Your task to perform on an android device: see sites visited before in the chrome app Image 0: 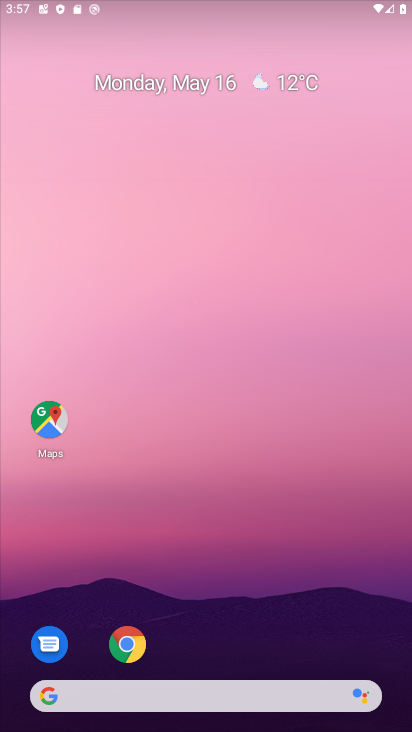
Step 0: drag from (259, 618) to (283, 153)
Your task to perform on an android device: see sites visited before in the chrome app Image 1: 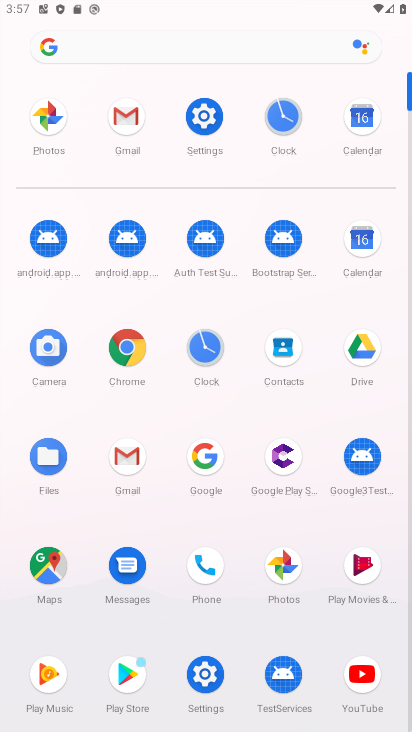
Step 1: click (127, 117)
Your task to perform on an android device: see sites visited before in the chrome app Image 2: 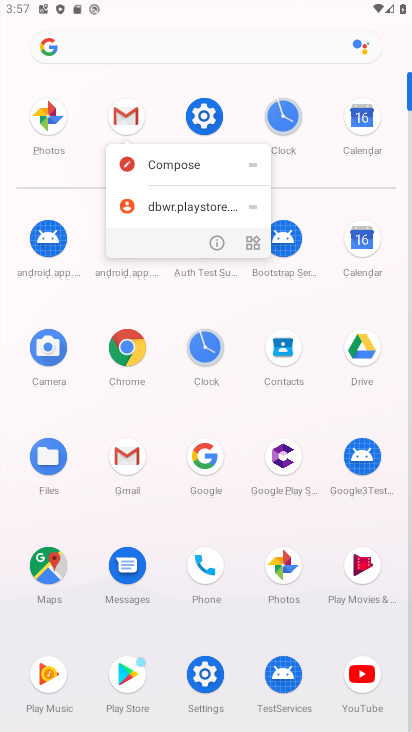
Step 2: click (133, 357)
Your task to perform on an android device: see sites visited before in the chrome app Image 3: 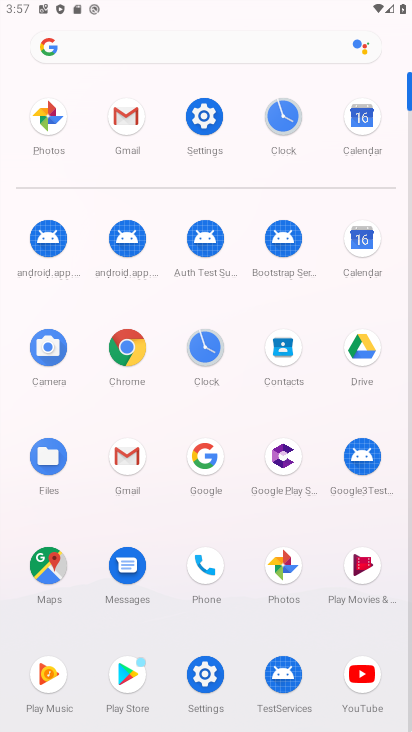
Step 3: click (133, 348)
Your task to perform on an android device: see sites visited before in the chrome app Image 4: 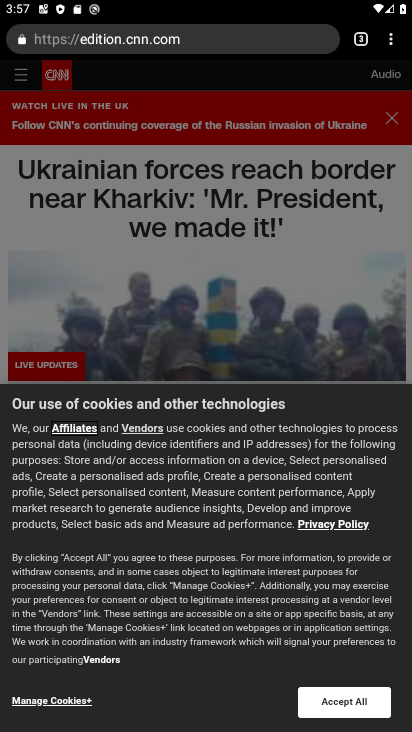
Step 4: task complete